Your task to perform on an android device: open app "Messenger Lite" (install if not already installed) Image 0: 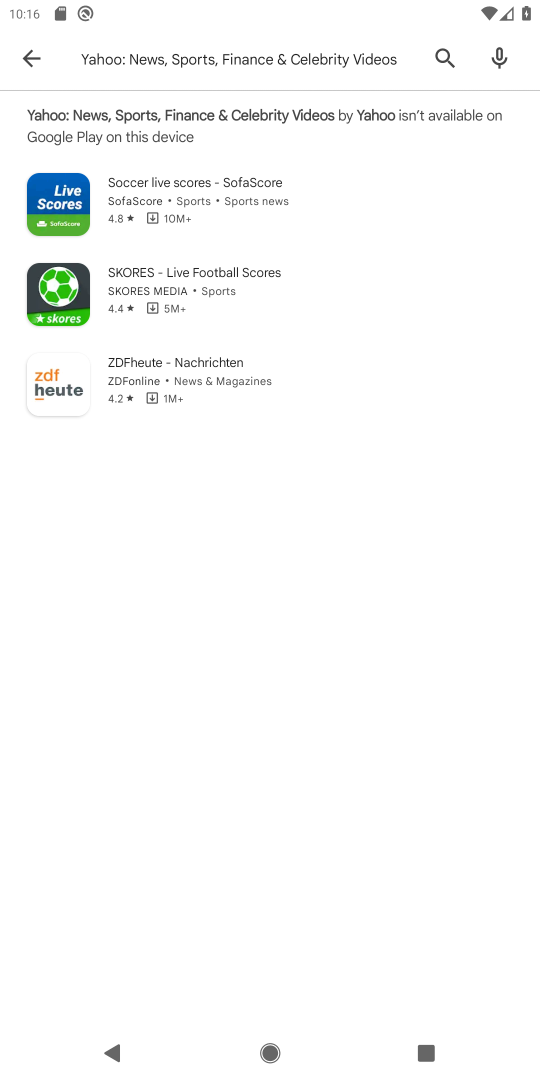
Step 0: task impossible